Your task to perform on an android device: Go to battery settings Image 0: 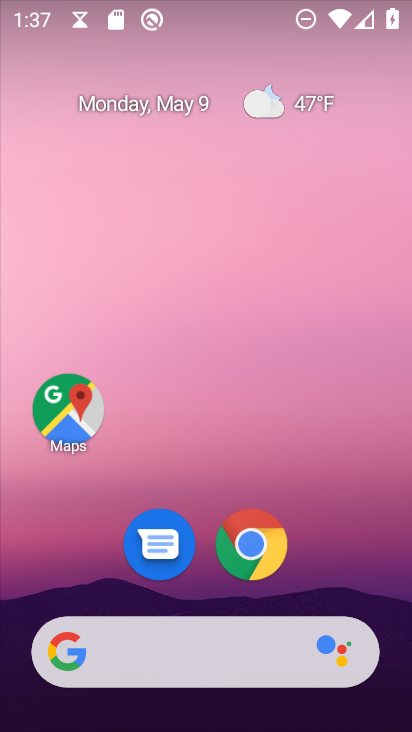
Step 0: drag from (391, 574) to (410, 180)
Your task to perform on an android device: Go to battery settings Image 1: 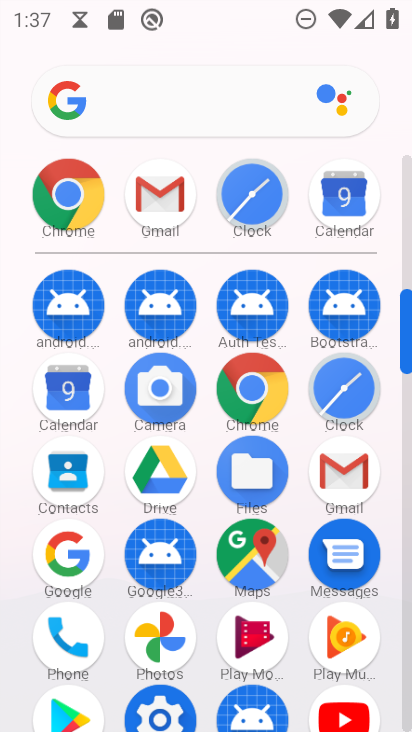
Step 1: click (141, 712)
Your task to perform on an android device: Go to battery settings Image 2: 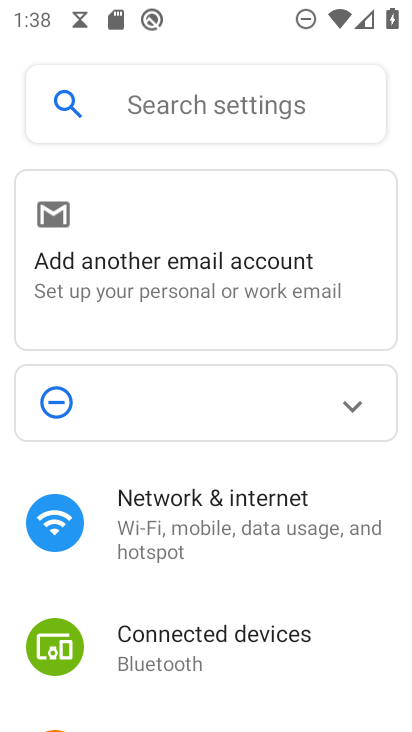
Step 2: drag from (185, 645) to (240, 256)
Your task to perform on an android device: Go to battery settings Image 3: 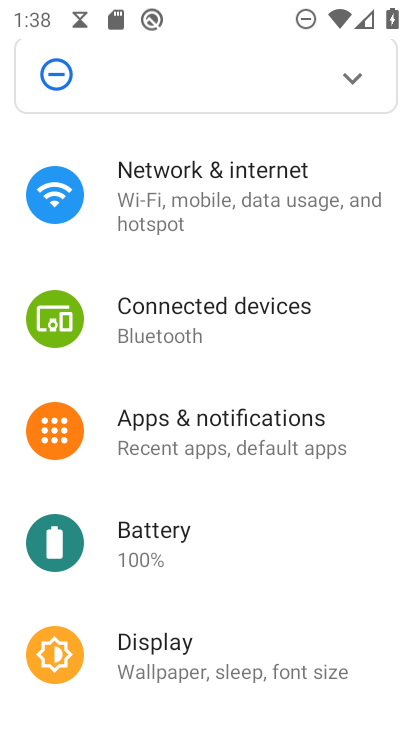
Step 3: click (191, 566)
Your task to perform on an android device: Go to battery settings Image 4: 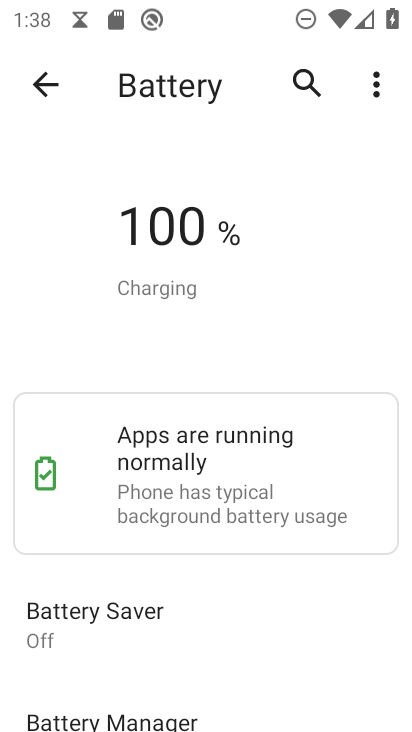
Step 4: task complete